Your task to perform on an android device: Open settings on Google Maps Image 0: 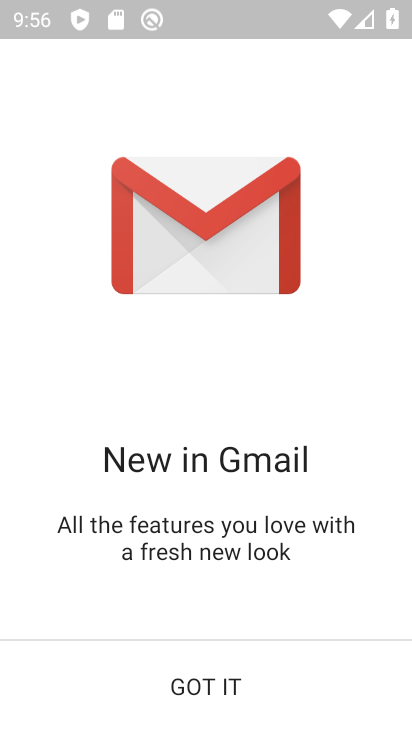
Step 0: click (166, 707)
Your task to perform on an android device: Open settings on Google Maps Image 1: 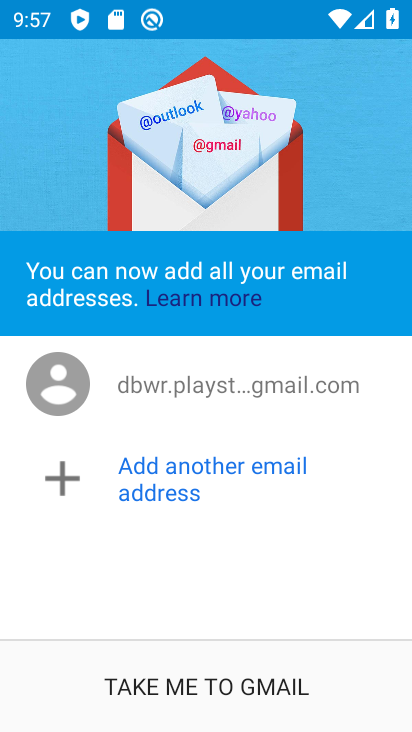
Step 1: press home button
Your task to perform on an android device: Open settings on Google Maps Image 2: 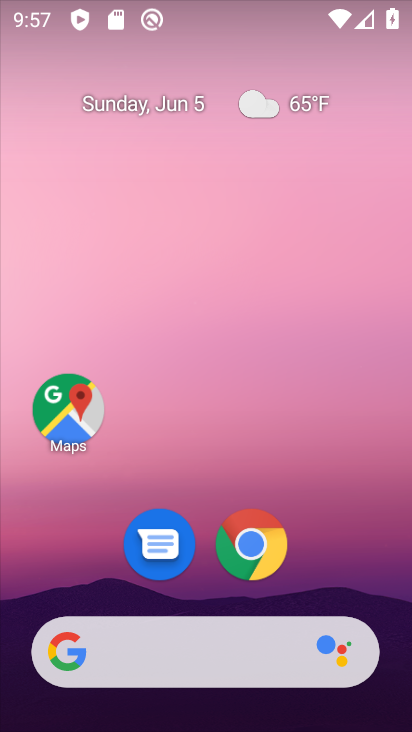
Step 2: click (83, 419)
Your task to perform on an android device: Open settings on Google Maps Image 3: 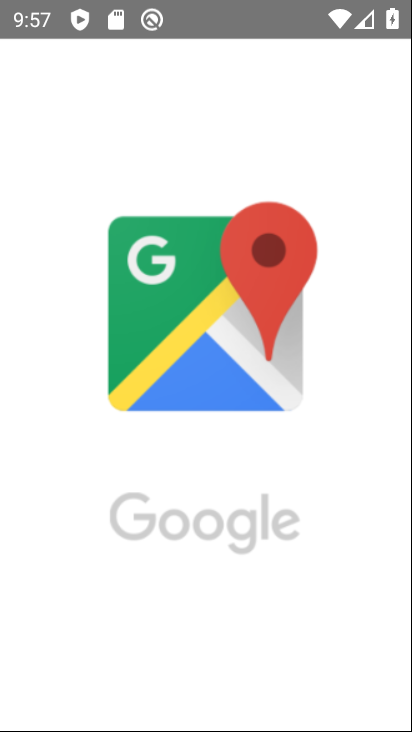
Step 3: task complete